Your task to perform on an android device: toggle notification dots Image 0: 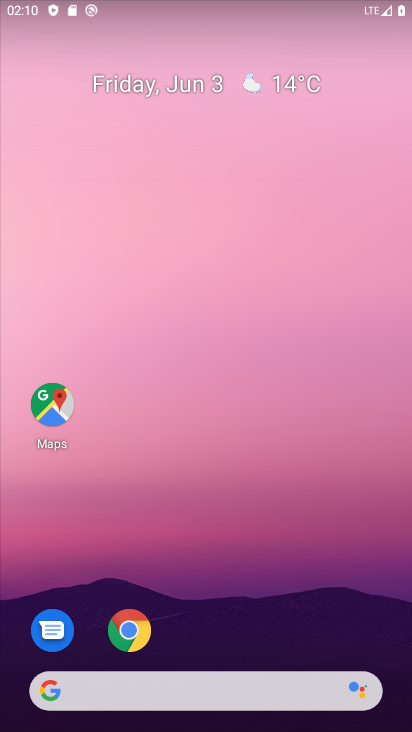
Step 0: drag from (385, 714) to (388, 176)
Your task to perform on an android device: toggle notification dots Image 1: 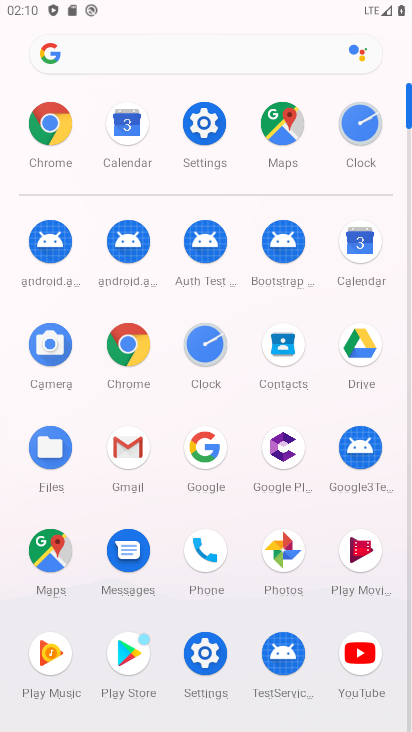
Step 1: click (190, 139)
Your task to perform on an android device: toggle notification dots Image 2: 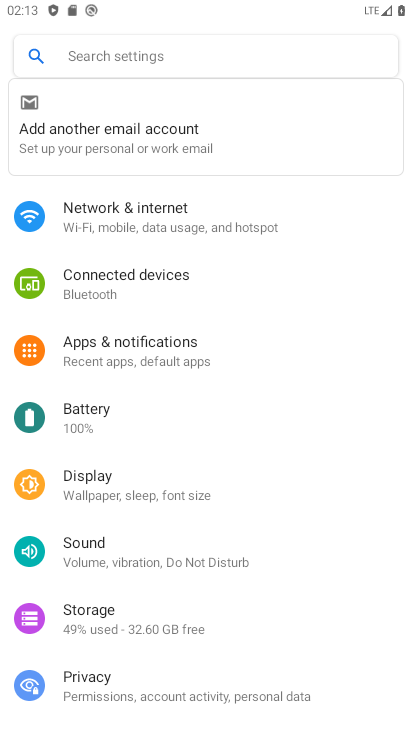
Step 2: click (111, 345)
Your task to perform on an android device: toggle notification dots Image 3: 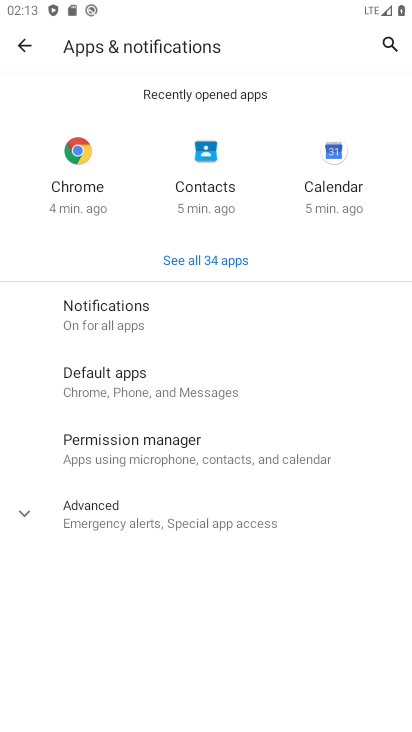
Step 3: click (111, 316)
Your task to perform on an android device: toggle notification dots Image 4: 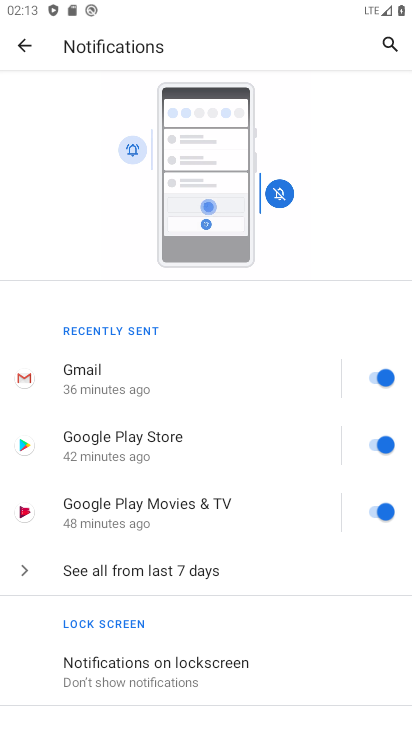
Step 4: drag from (267, 667) to (296, 281)
Your task to perform on an android device: toggle notification dots Image 5: 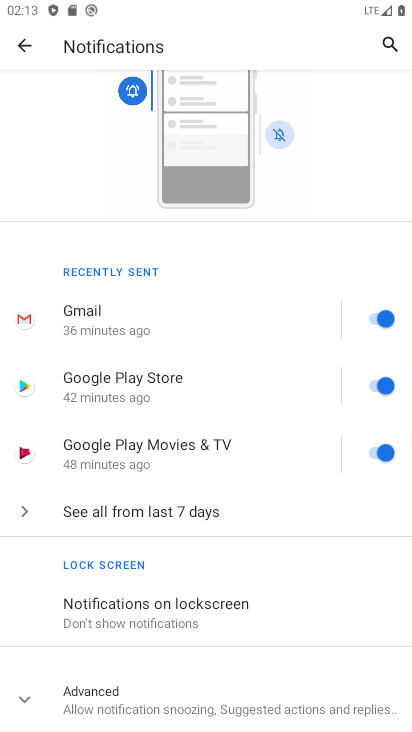
Step 5: click (27, 703)
Your task to perform on an android device: toggle notification dots Image 6: 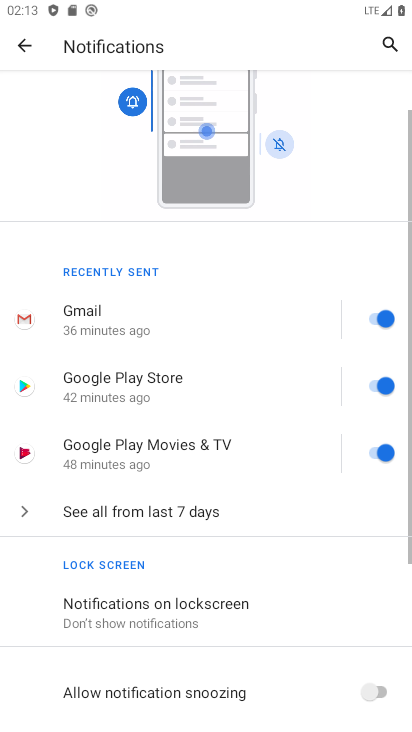
Step 6: drag from (300, 612) to (293, 241)
Your task to perform on an android device: toggle notification dots Image 7: 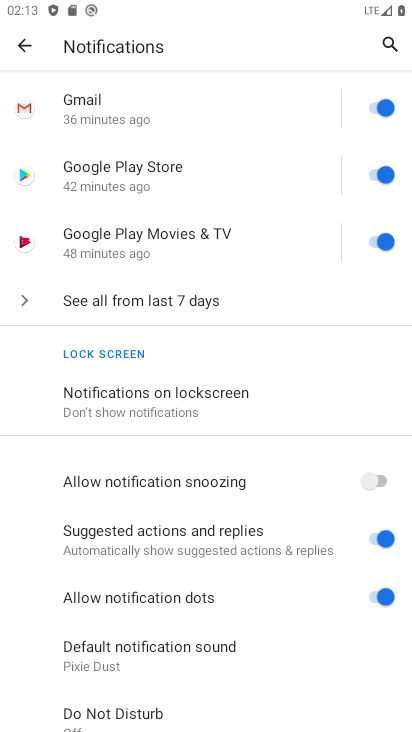
Step 7: click (365, 597)
Your task to perform on an android device: toggle notification dots Image 8: 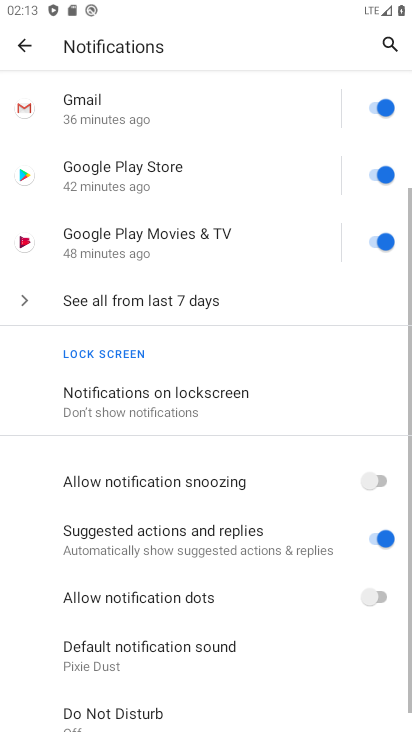
Step 8: task complete